Your task to perform on an android device: turn on the 12-hour format for clock Image 0: 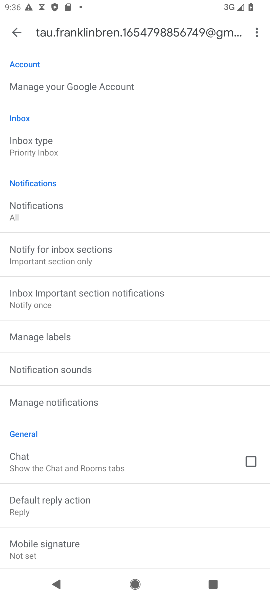
Step 0: press back button
Your task to perform on an android device: turn on the 12-hour format for clock Image 1: 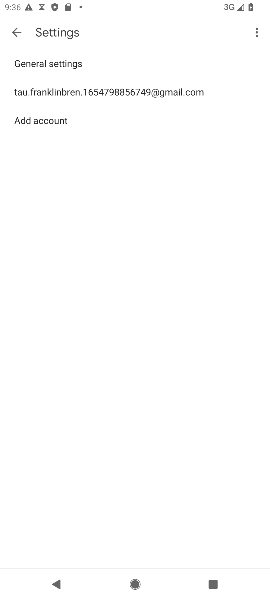
Step 1: press home button
Your task to perform on an android device: turn on the 12-hour format for clock Image 2: 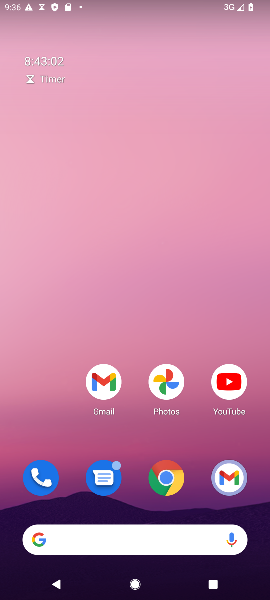
Step 2: drag from (193, 361) to (146, 10)
Your task to perform on an android device: turn on the 12-hour format for clock Image 3: 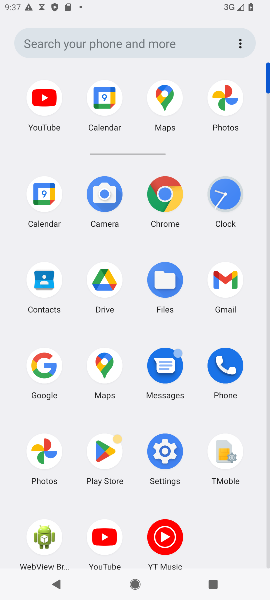
Step 3: click (223, 218)
Your task to perform on an android device: turn on the 12-hour format for clock Image 4: 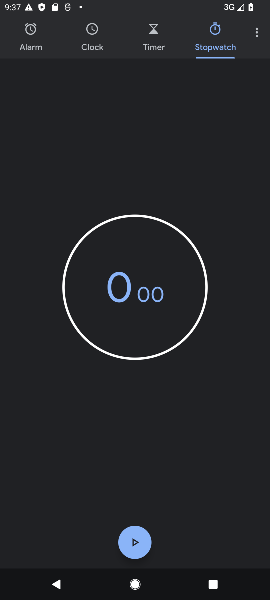
Step 4: click (263, 38)
Your task to perform on an android device: turn on the 12-hour format for clock Image 5: 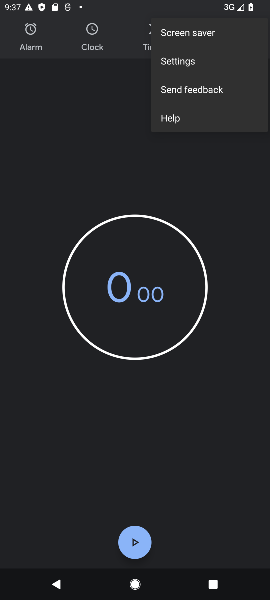
Step 5: click (215, 62)
Your task to perform on an android device: turn on the 12-hour format for clock Image 6: 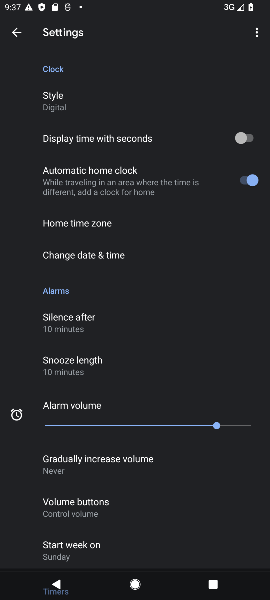
Step 6: click (135, 254)
Your task to perform on an android device: turn on the 12-hour format for clock Image 7: 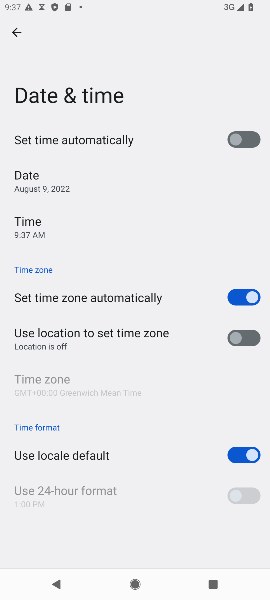
Step 7: task complete